Your task to perform on an android device: find which apps use the phone's location Image 0: 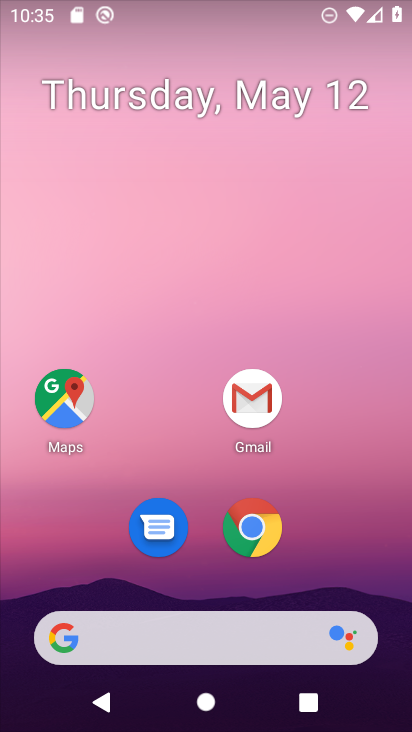
Step 0: drag from (340, 531) to (333, 257)
Your task to perform on an android device: find which apps use the phone's location Image 1: 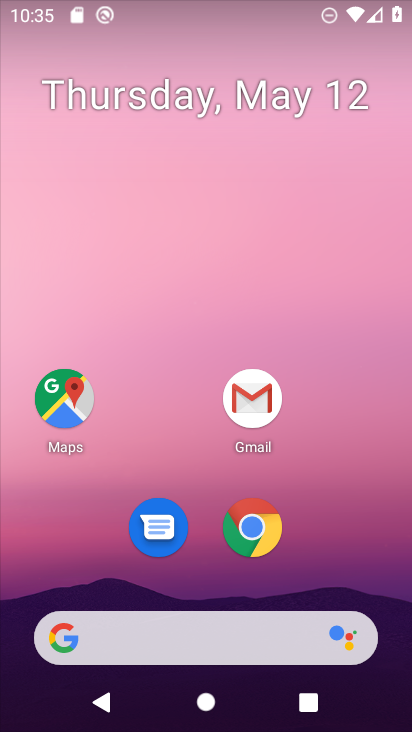
Step 1: drag from (357, 509) to (320, 222)
Your task to perform on an android device: find which apps use the phone's location Image 2: 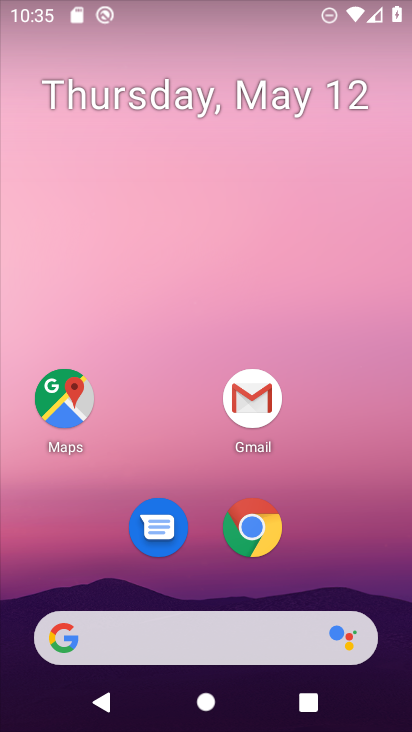
Step 2: drag from (341, 527) to (351, 198)
Your task to perform on an android device: find which apps use the phone's location Image 3: 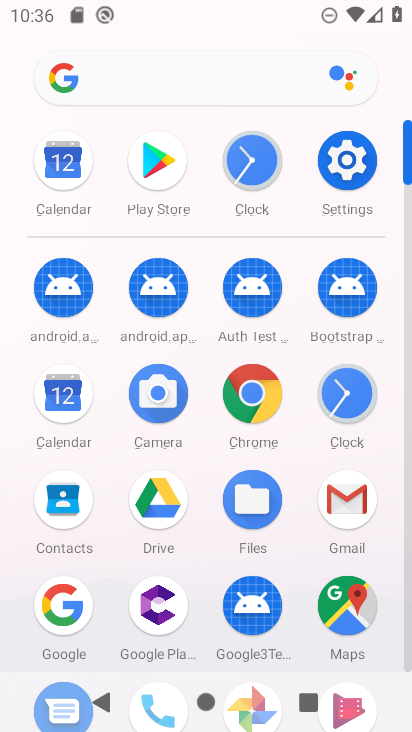
Step 3: click (359, 184)
Your task to perform on an android device: find which apps use the phone's location Image 4: 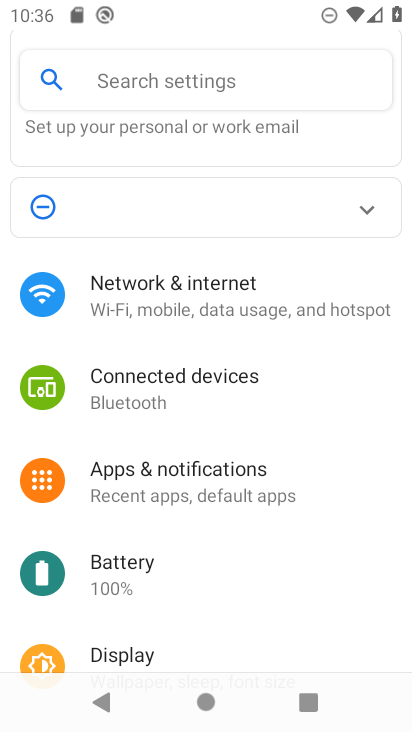
Step 4: drag from (224, 545) to (229, 154)
Your task to perform on an android device: find which apps use the phone's location Image 5: 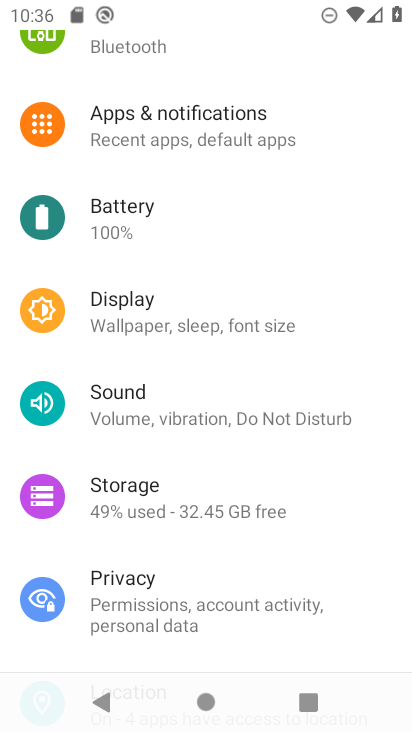
Step 5: drag from (232, 542) to (239, 324)
Your task to perform on an android device: find which apps use the phone's location Image 6: 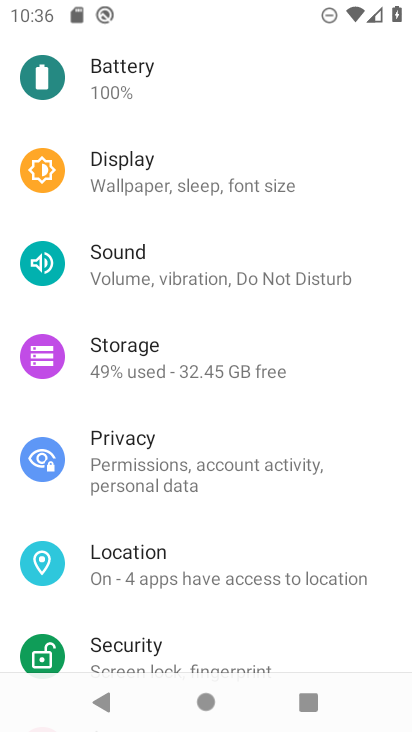
Step 6: click (229, 580)
Your task to perform on an android device: find which apps use the phone's location Image 7: 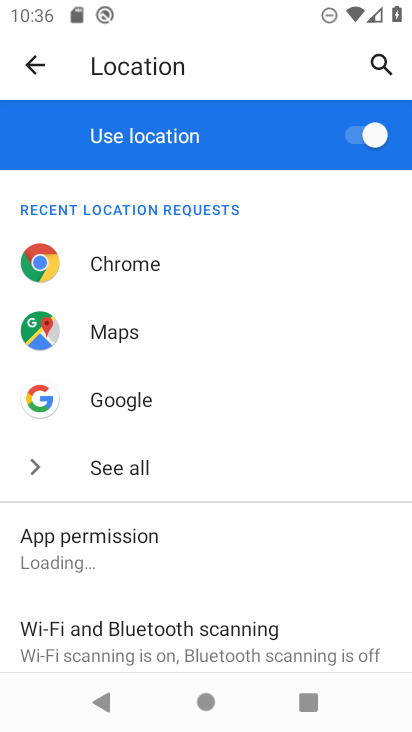
Step 7: click (236, 550)
Your task to perform on an android device: find which apps use the phone's location Image 8: 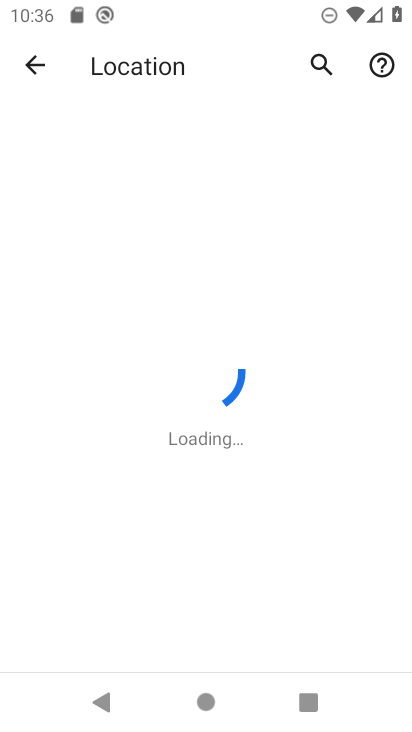
Step 8: task complete